Your task to perform on an android device: visit the assistant section in the google photos Image 0: 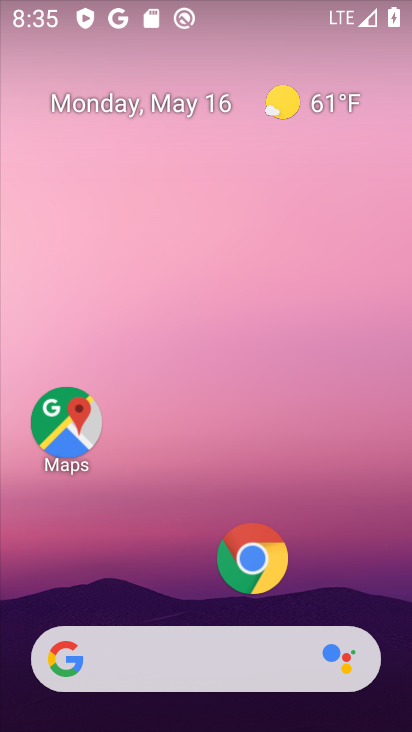
Step 0: drag from (181, 512) to (256, 78)
Your task to perform on an android device: visit the assistant section in the google photos Image 1: 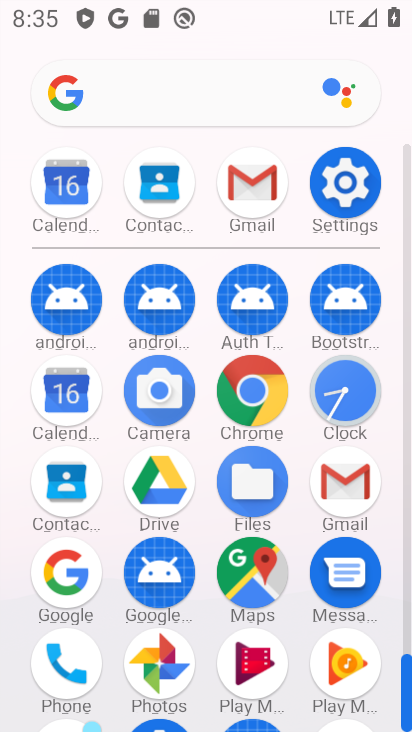
Step 1: click (157, 675)
Your task to perform on an android device: visit the assistant section in the google photos Image 2: 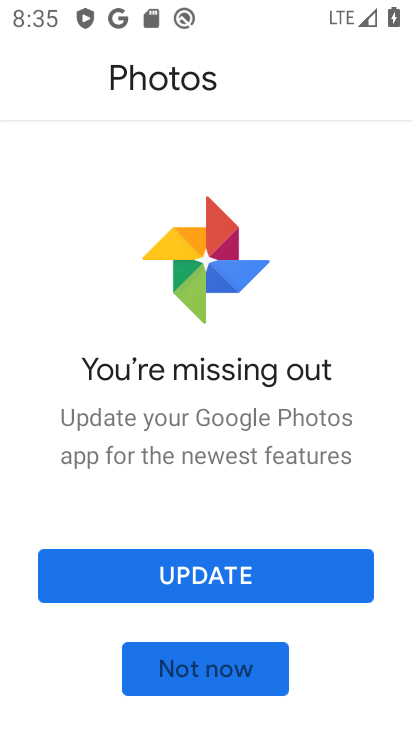
Step 2: click (206, 658)
Your task to perform on an android device: visit the assistant section in the google photos Image 3: 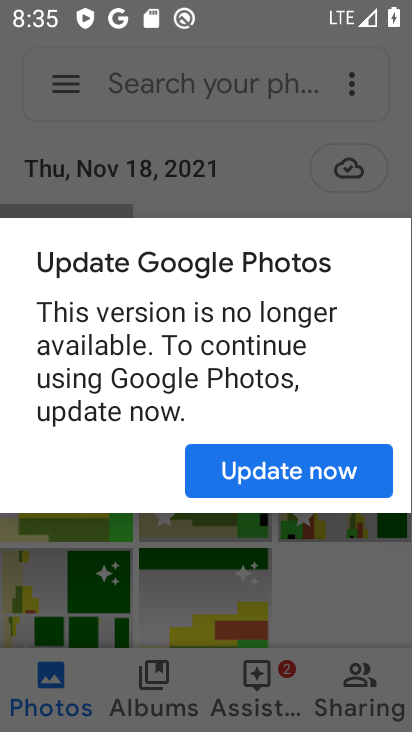
Step 3: click (245, 476)
Your task to perform on an android device: visit the assistant section in the google photos Image 4: 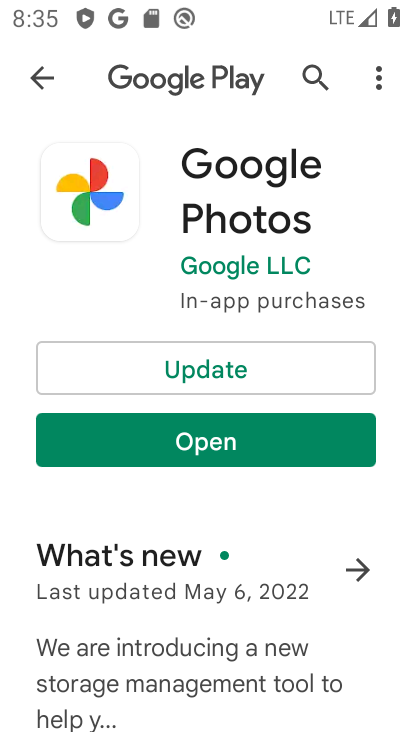
Step 4: click (220, 451)
Your task to perform on an android device: visit the assistant section in the google photos Image 5: 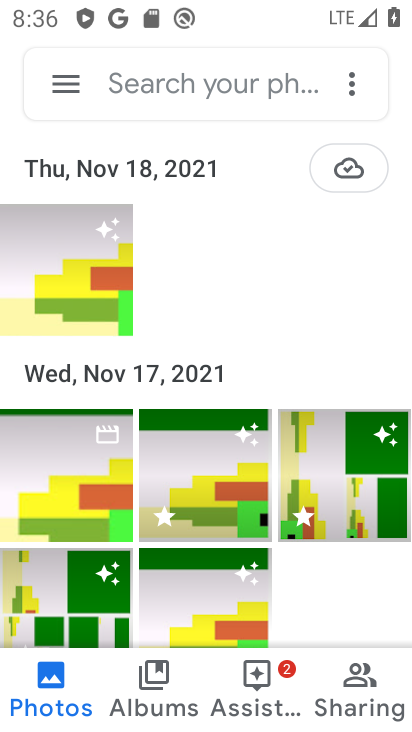
Step 5: click (269, 703)
Your task to perform on an android device: visit the assistant section in the google photos Image 6: 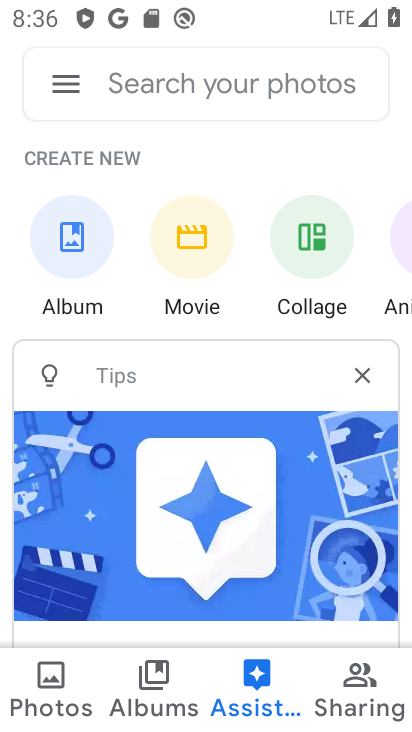
Step 6: task complete